Your task to perform on an android device: Search for the new nike air max shoes on Nike. Image 0: 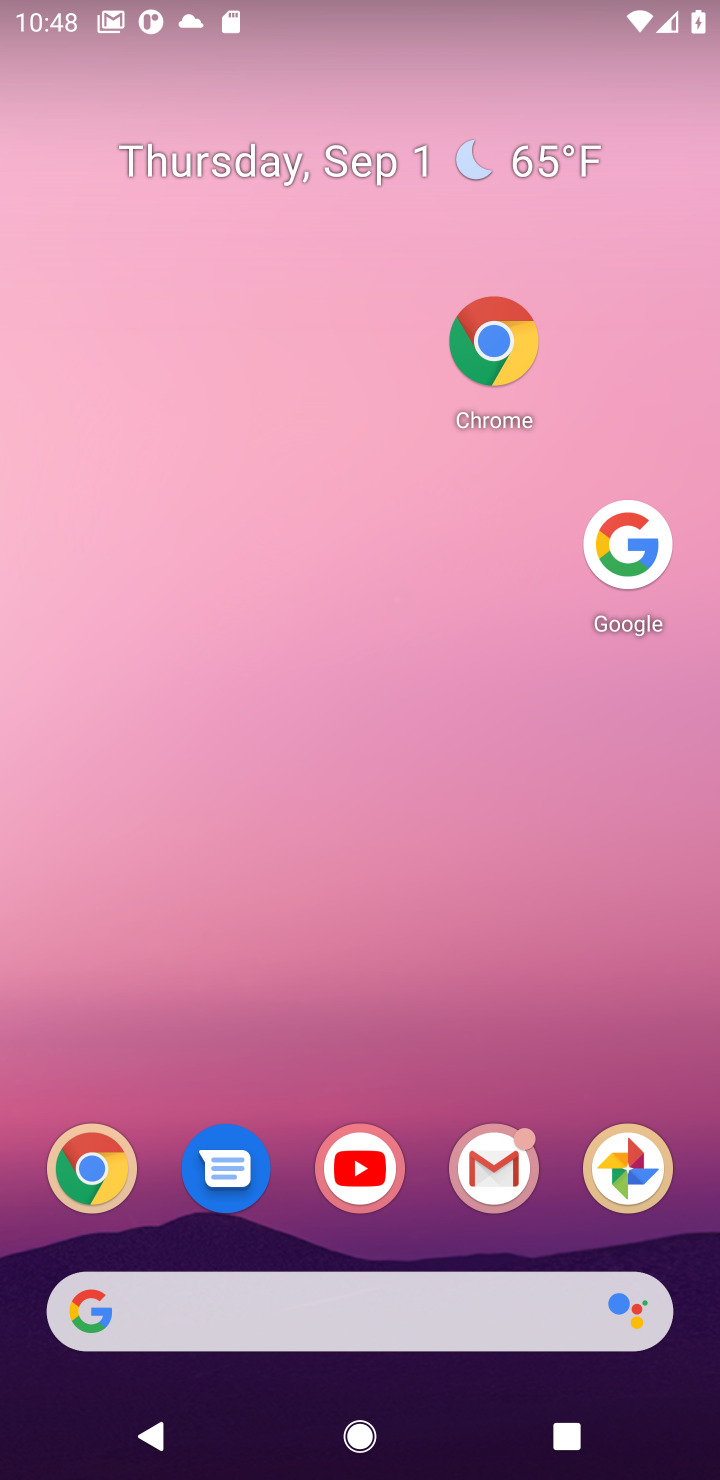
Step 0: click (237, 413)
Your task to perform on an android device: Search for the new nike air max shoes on Nike. Image 1: 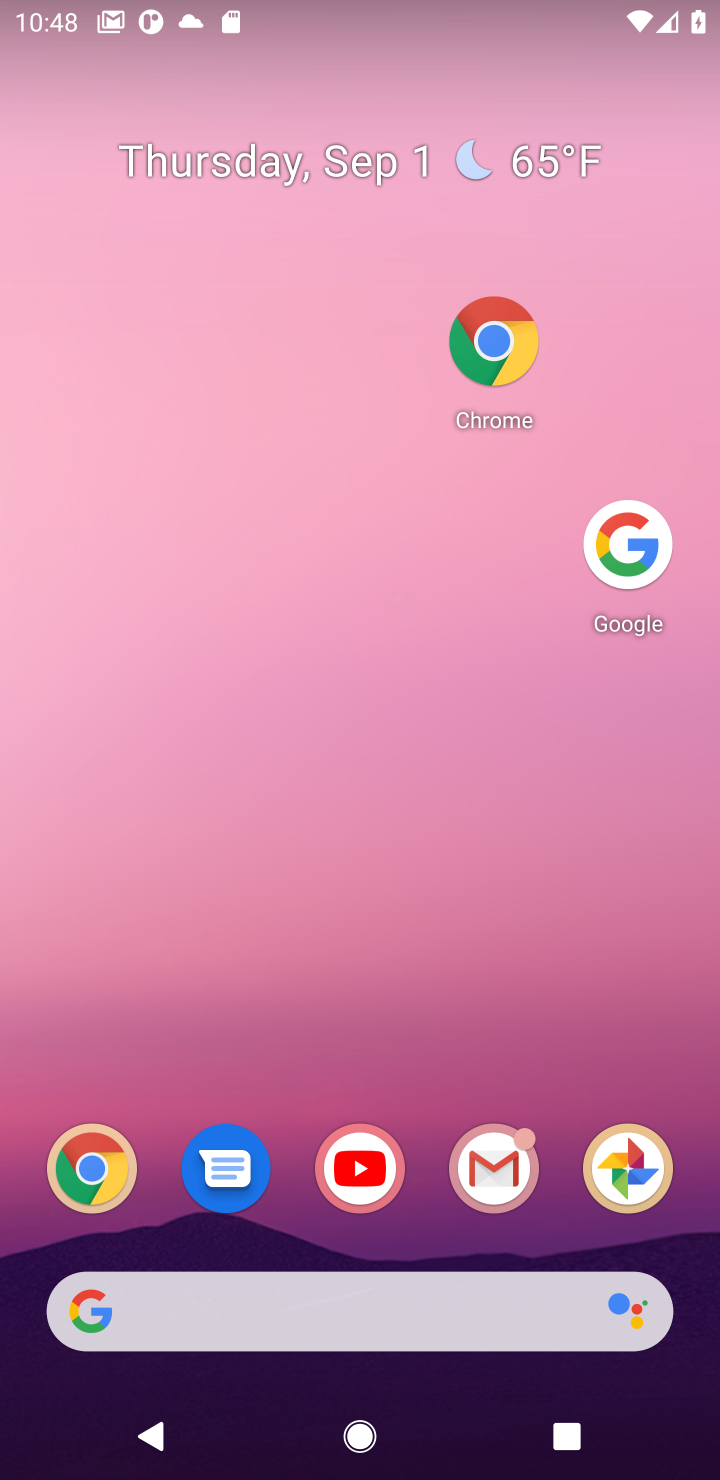
Step 1: click (643, 526)
Your task to perform on an android device: Search for the new nike air max shoes on Nike. Image 2: 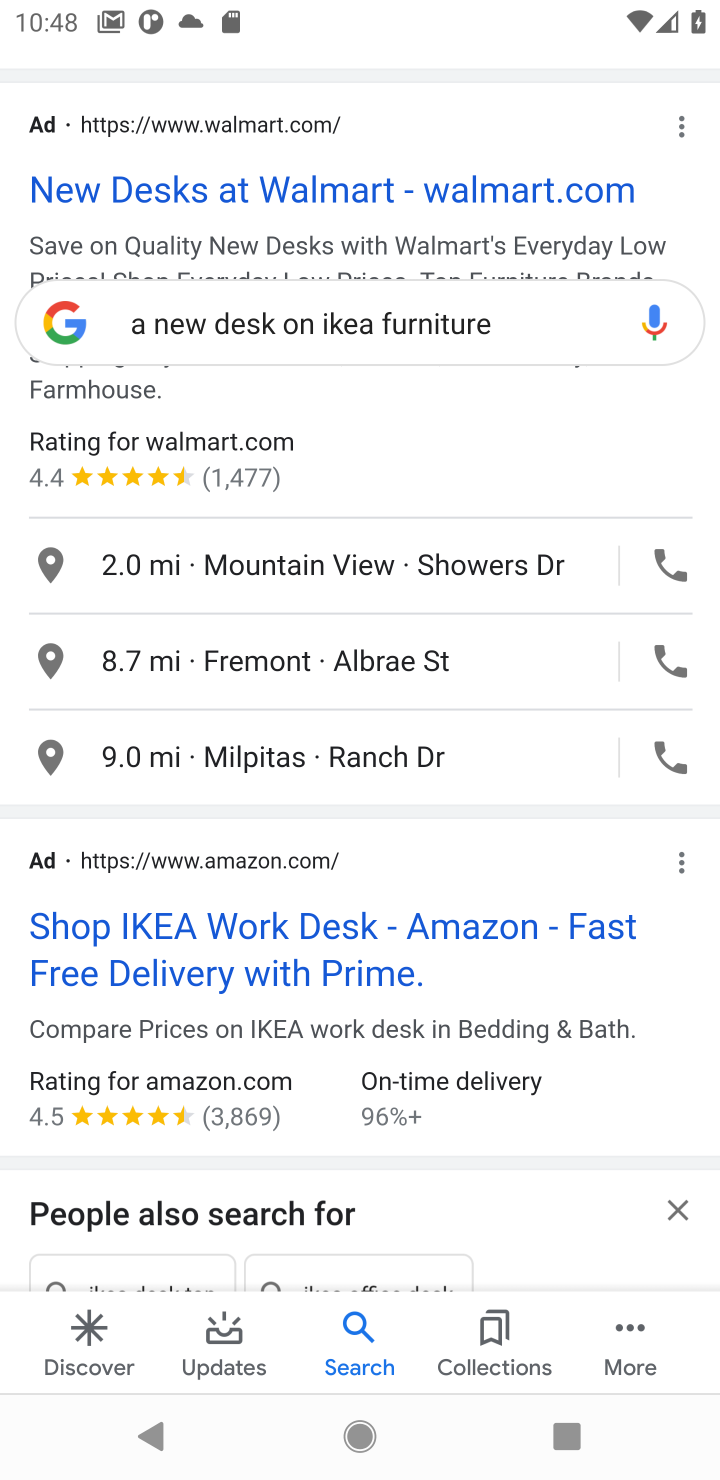
Step 2: drag from (401, 265) to (392, 1208)
Your task to perform on an android device: Search for the new nike air max shoes on Nike. Image 3: 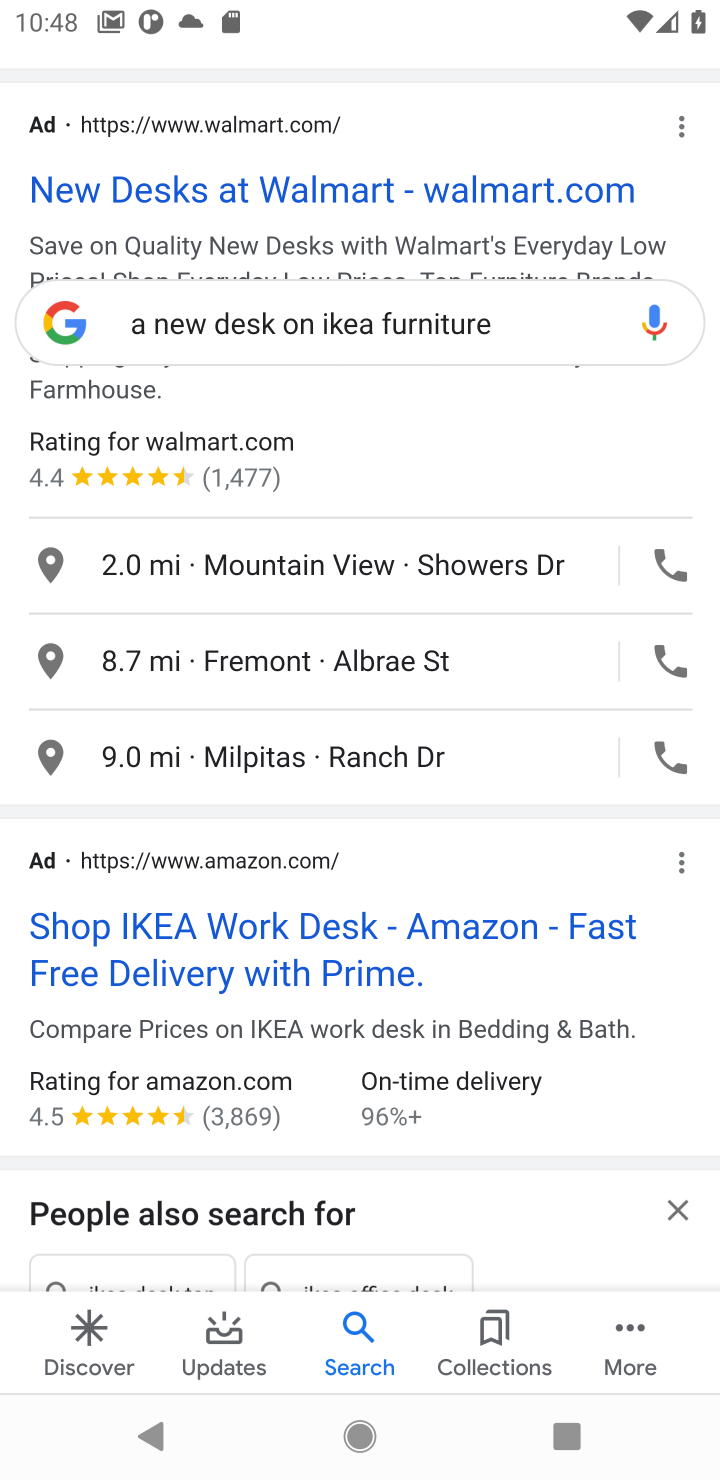
Step 3: click (516, 315)
Your task to perform on an android device: Search for the new nike air max shoes on Nike. Image 4: 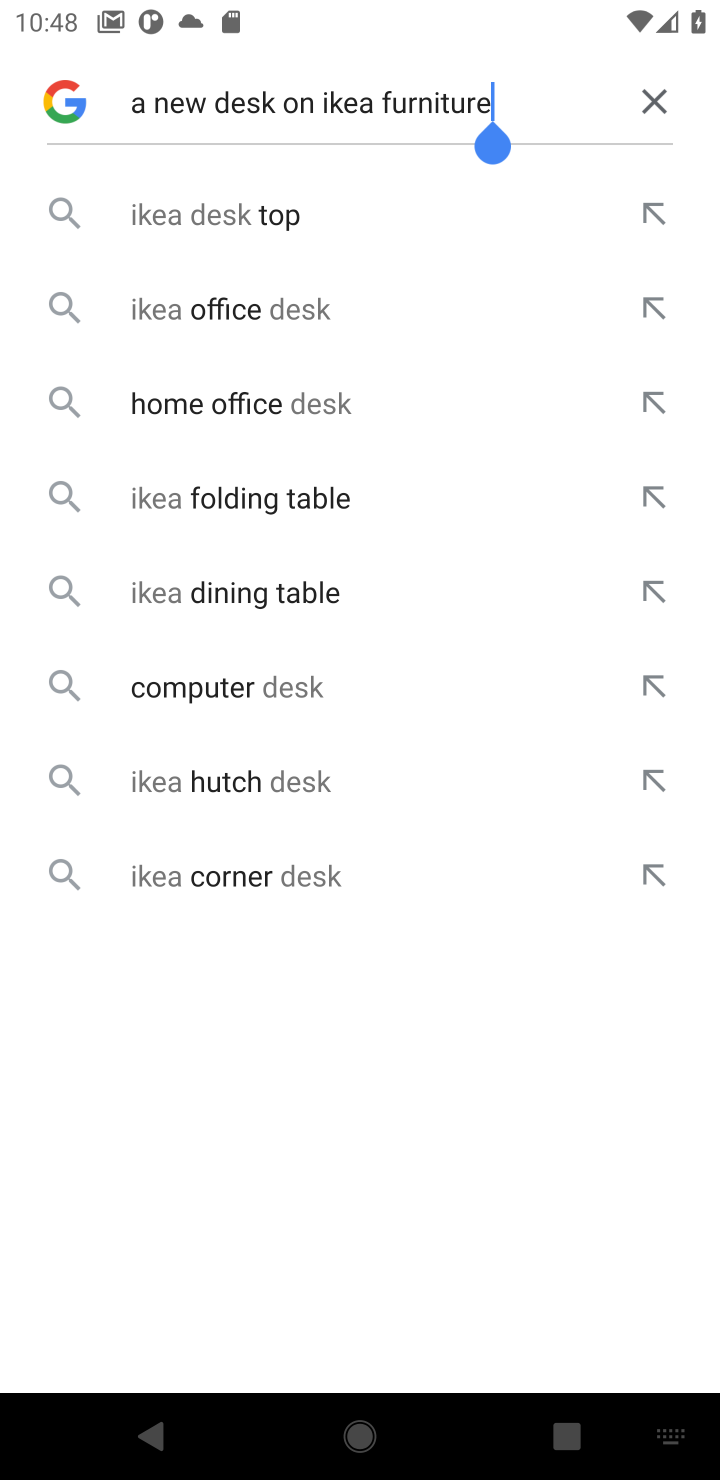
Step 4: click (656, 104)
Your task to perform on an android device: Search for the new nike air max shoes on Nike. Image 5: 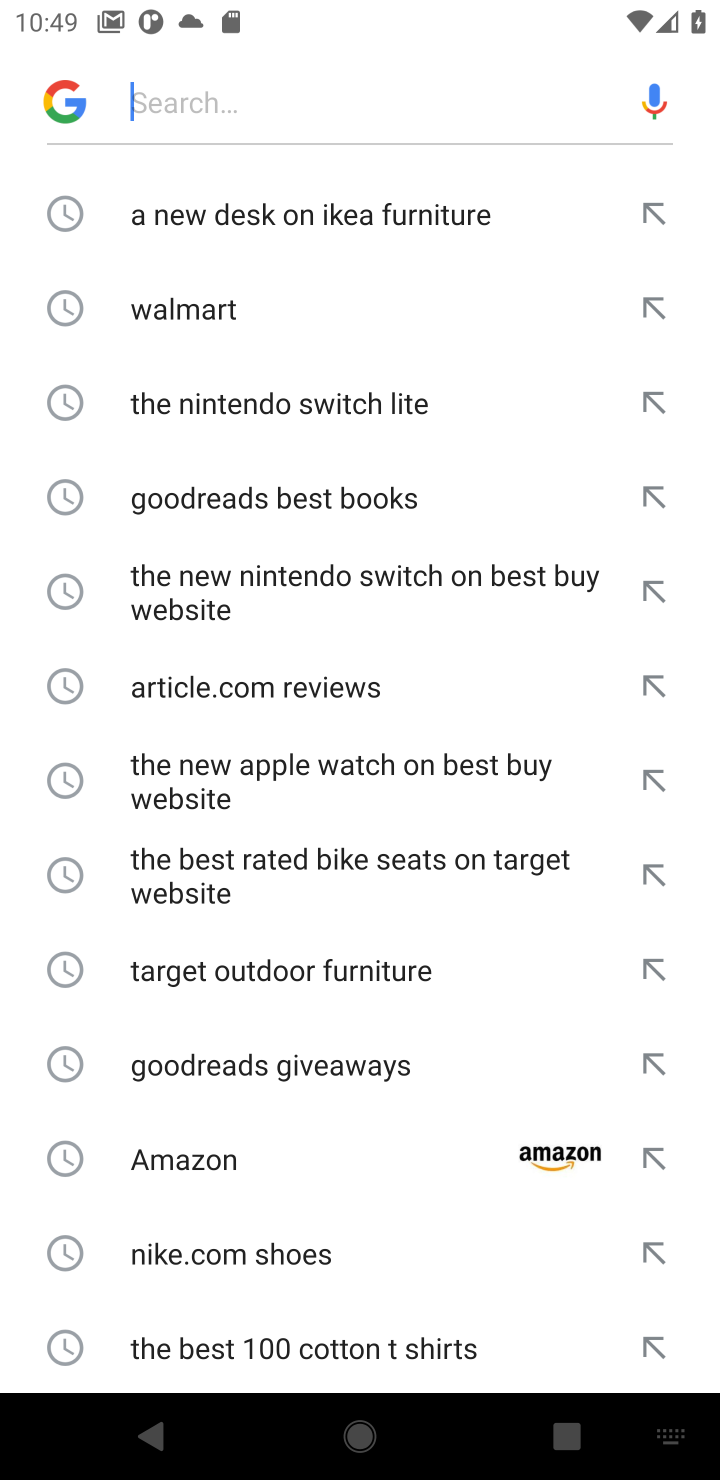
Step 5: click (331, 73)
Your task to perform on an android device: Search for the new nike air max shoes on Nike. Image 6: 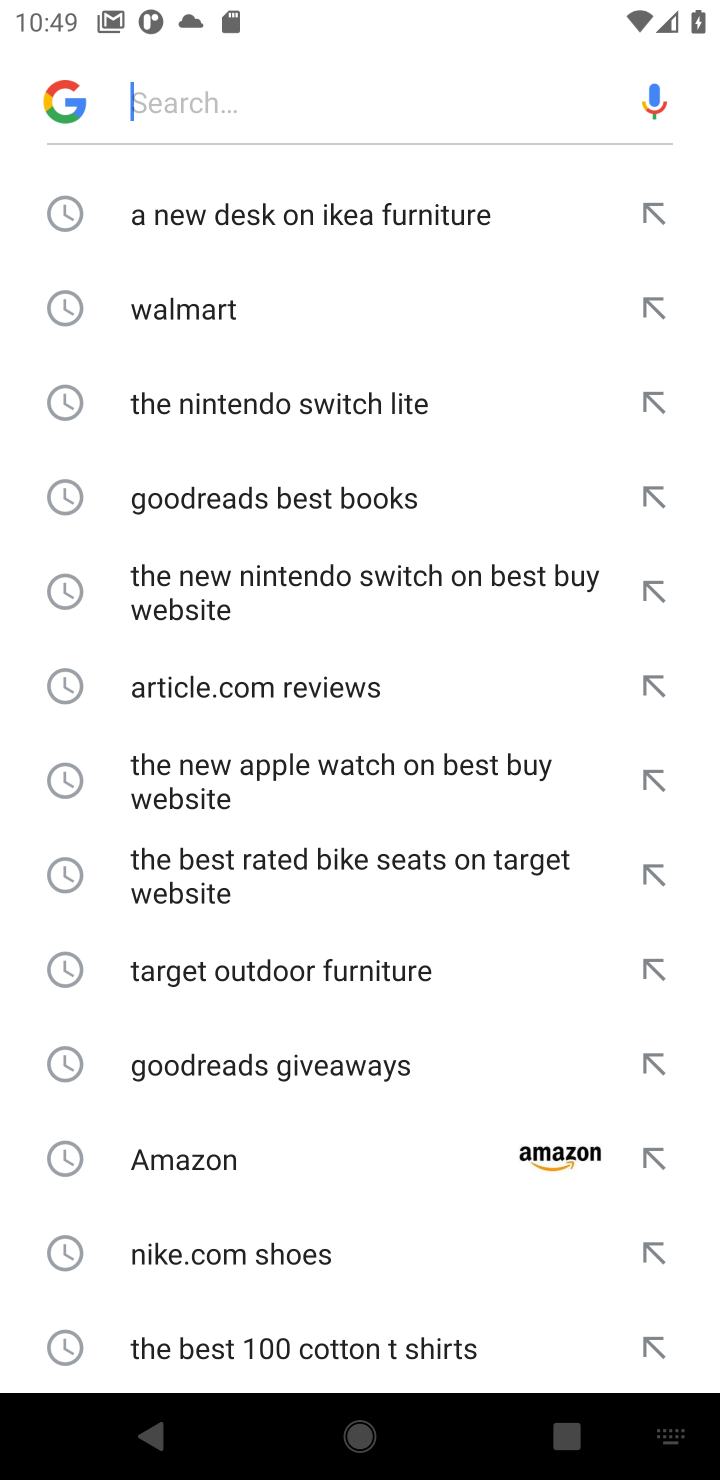
Step 6: click (412, 91)
Your task to perform on an android device: Search for the new nike air max shoes on Nike. Image 7: 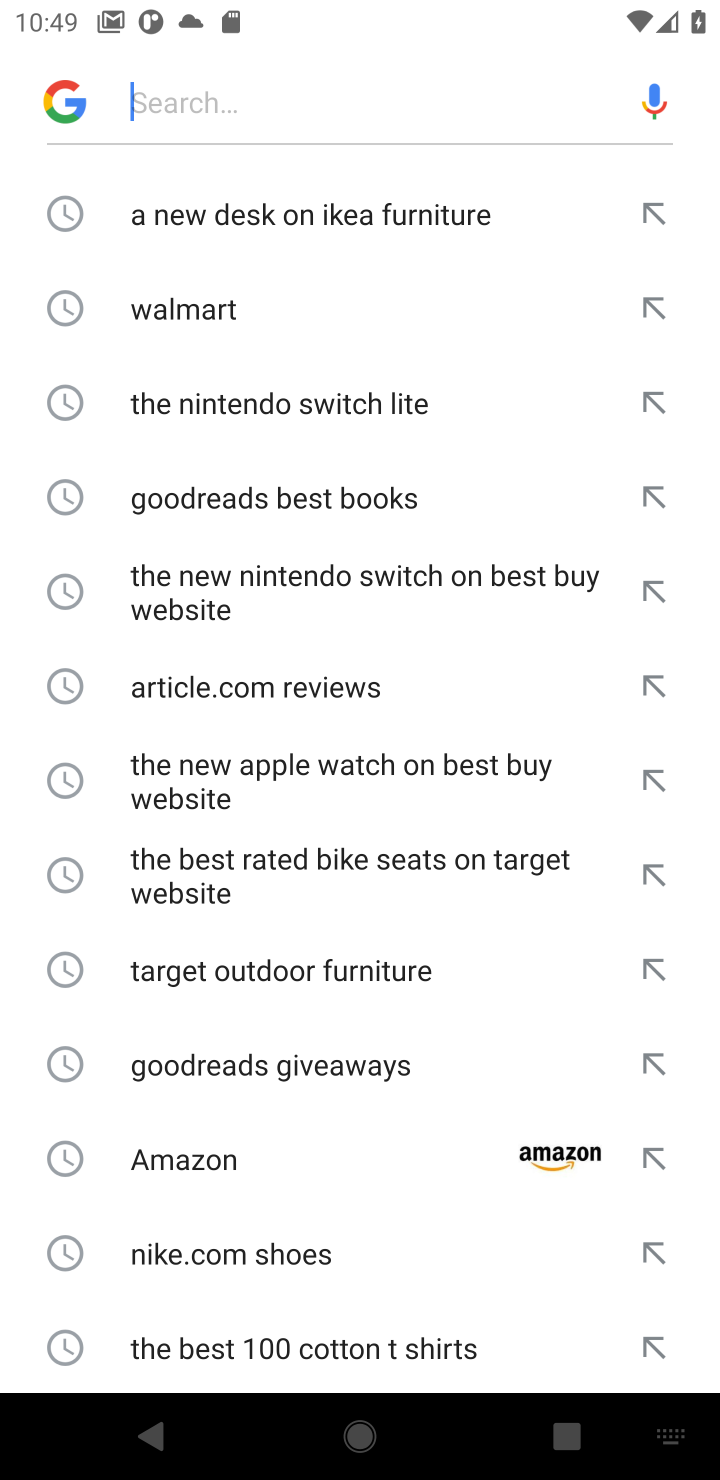
Step 7: type " new nike air max shoes on Nike "
Your task to perform on an android device: Search for the new nike air max shoes on Nike. Image 8: 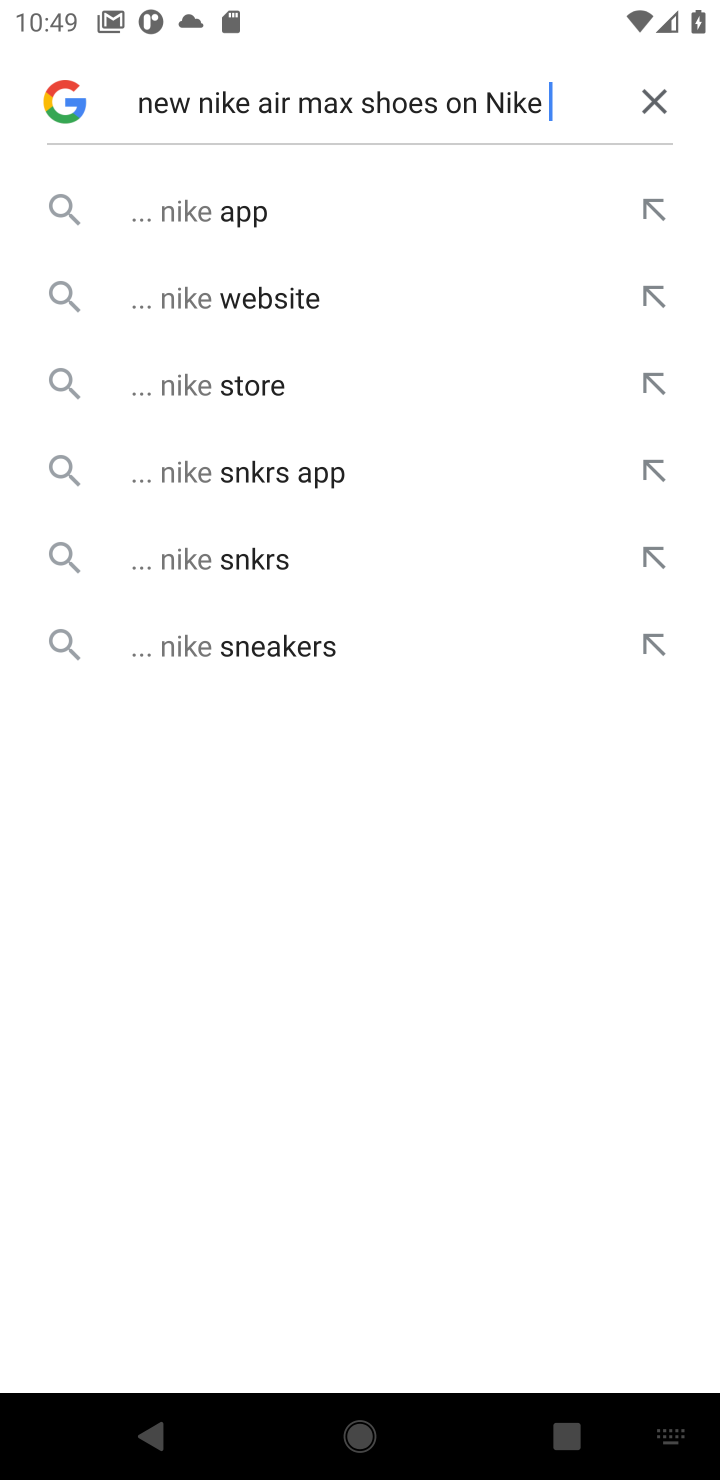
Step 8: click (236, 214)
Your task to perform on an android device: Search for the new nike air max shoes on Nike. Image 9: 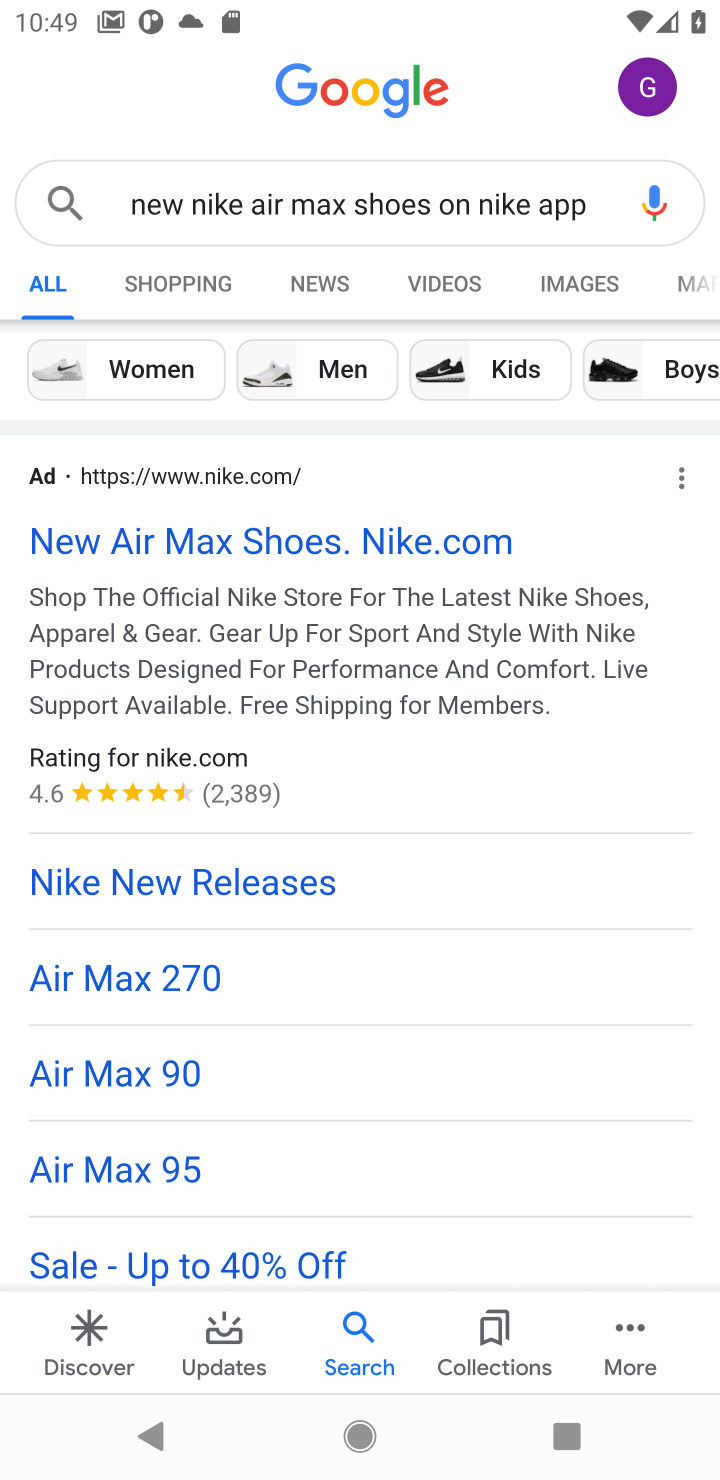
Step 9: click (363, 538)
Your task to perform on an android device: Search for the new nike air max shoes on Nike. Image 10: 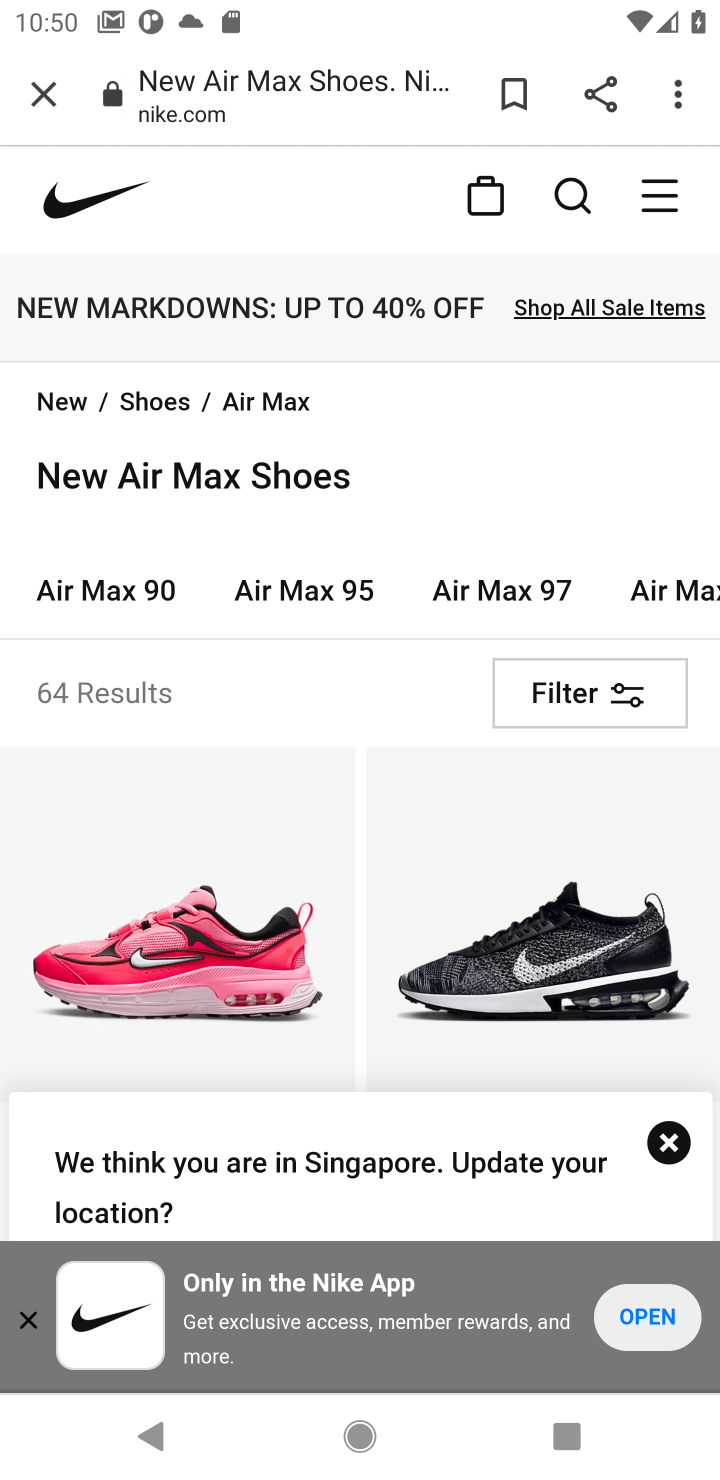
Step 10: task complete